Your task to perform on an android device: turn pop-ups off in chrome Image 0: 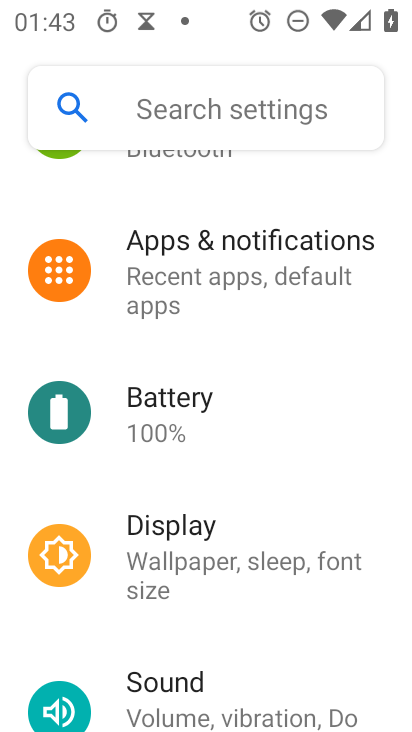
Step 0: drag from (204, 516) to (248, 221)
Your task to perform on an android device: turn pop-ups off in chrome Image 1: 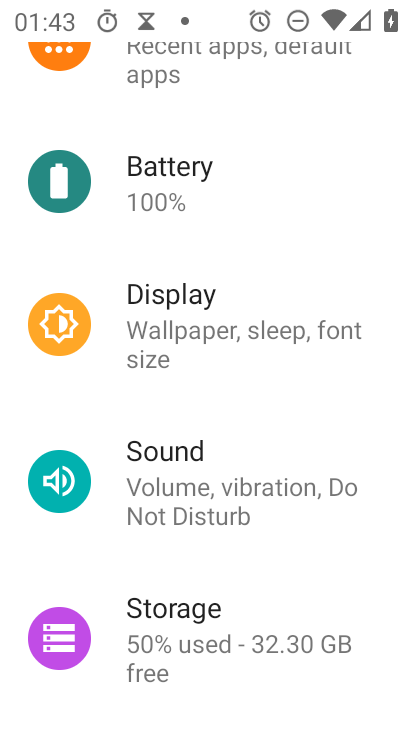
Step 1: press home button
Your task to perform on an android device: turn pop-ups off in chrome Image 2: 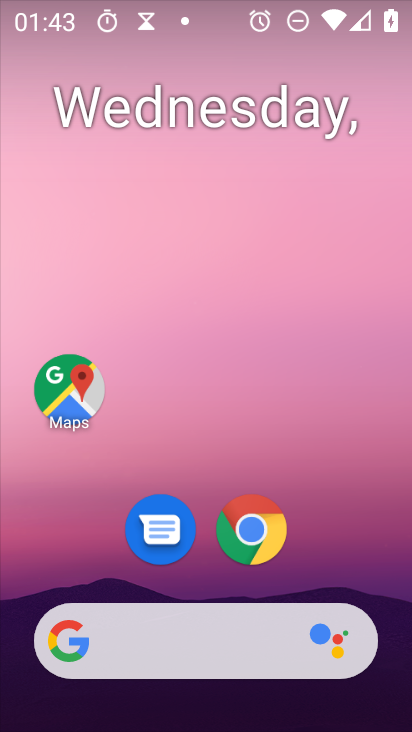
Step 2: drag from (159, 667) to (252, 4)
Your task to perform on an android device: turn pop-ups off in chrome Image 3: 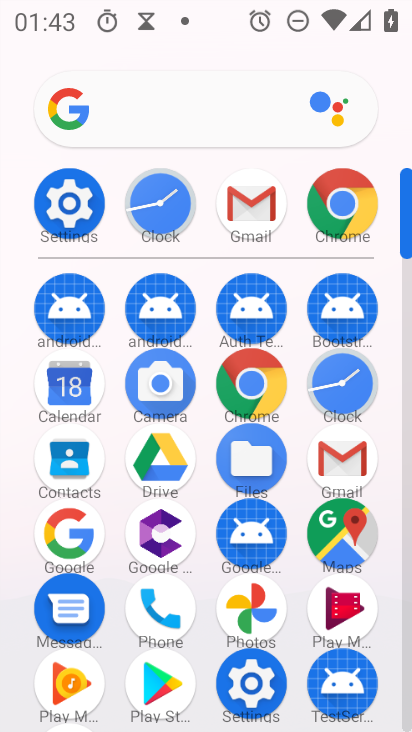
Step 3: click (242, 383)
Your task to perform on an android device: turn pop-ups off in chrome Image 4: 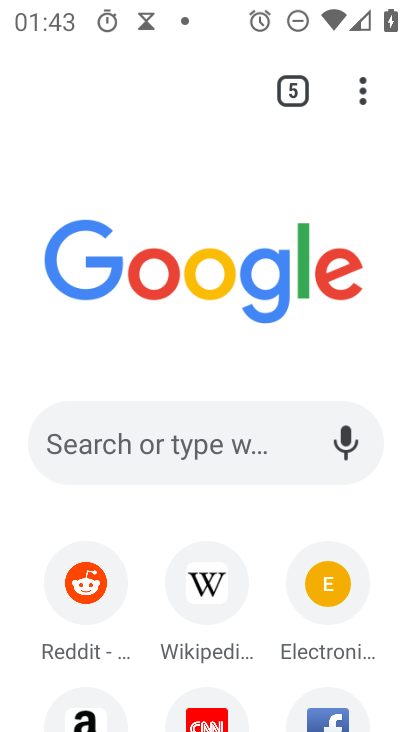
Step 4: click (371, 70)
Your task to perform on an android device: turn pop-ups off in chrome Image 5: 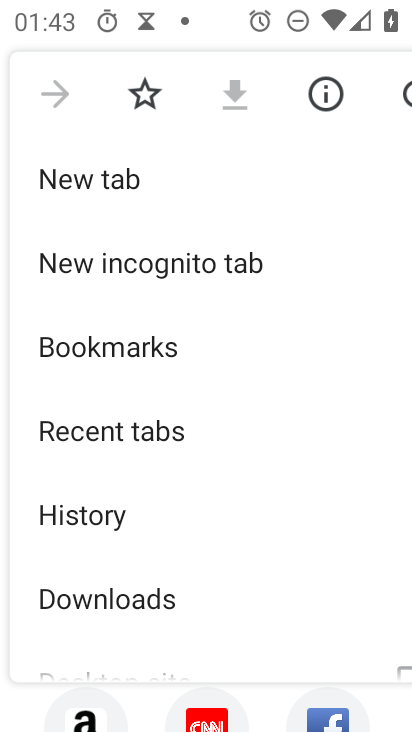
Step 5: drag from (191, 533) to (270, 108)
Your task to perform on an android device: turn pop-ups off in chrome Image 6: 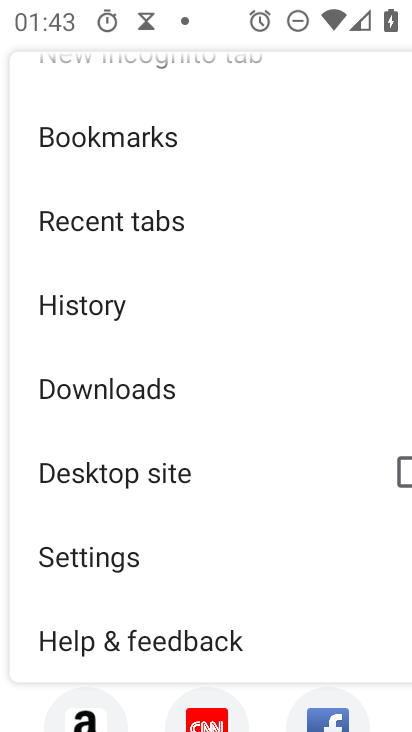
Step 6: click (114, 563)
Your task to perform on an android device: turn pop-ups off in chrome Image 7: 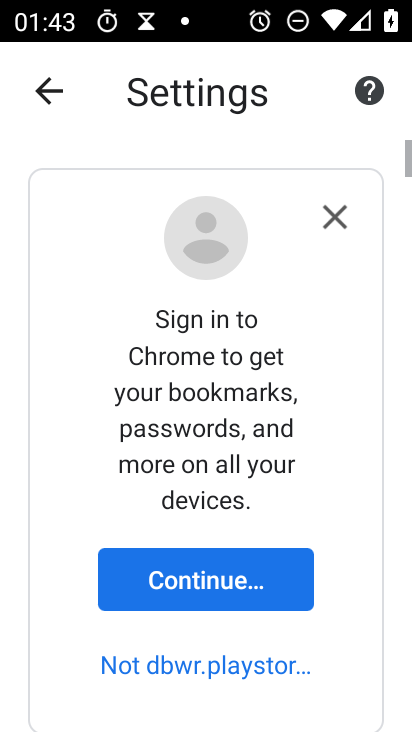
Step 7: drag from (362, 683) to (337, 52)
Your task to perform on an android device: turn pop-ups off in chrome Image 8: 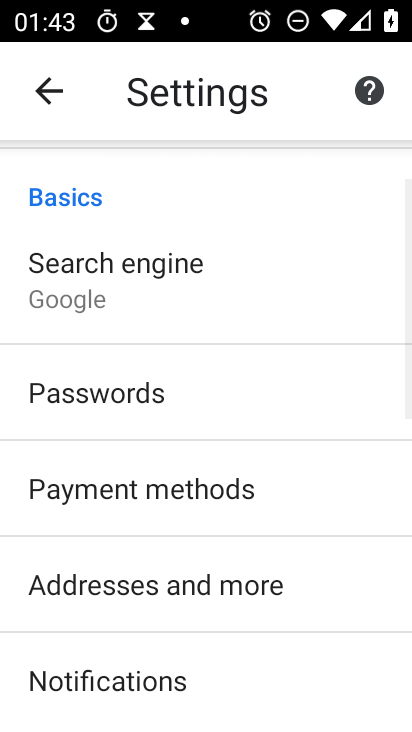
Step 8: drag from (210, 672) to (245, 85)
Your task to perform on an android device: turn pop-ups off in chrome Image 9: 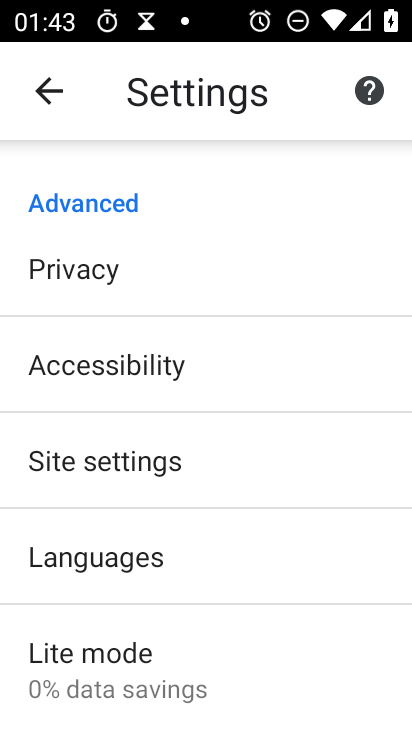
Step 9: click (139, 473)
Your task to perform on an android device: turn pop-ups off in chrome Image 10: 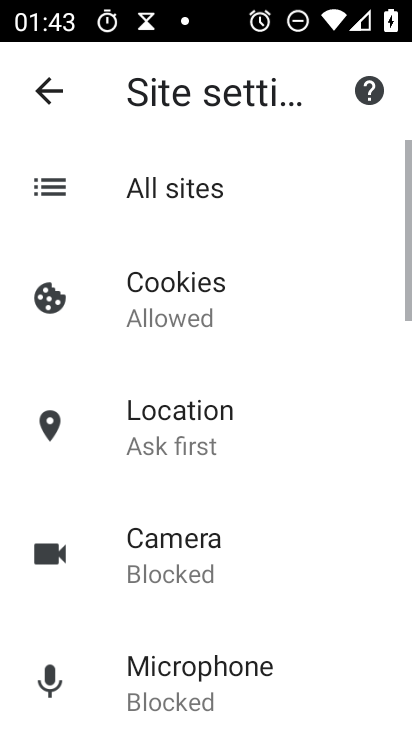
Step 10: drag from (204, 671) to (279, 58)
Your task to perform on an android device: turn pop-ups off in chrome Image 11: 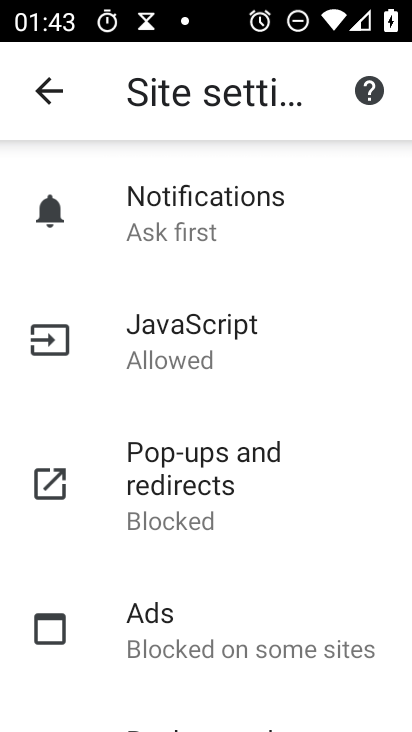
Step 11: click (180, 494)
Your task to perform on an android device: turn pop-ups off in chrome Image 12: 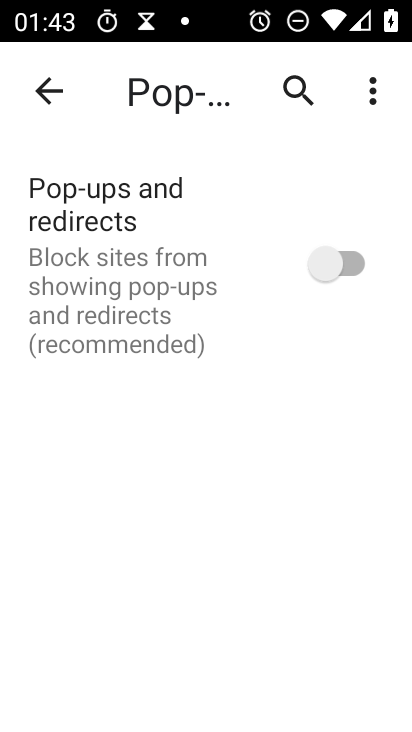
Step 12: task complete